Your task to perform on an android device: add a contact Image 0: 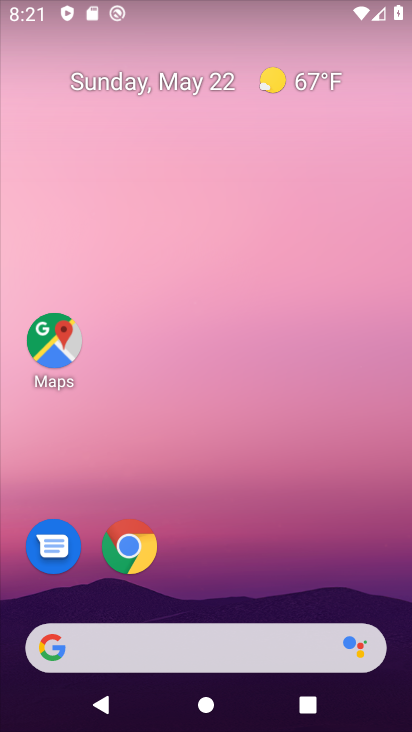
Step 0: drag from (193, 601) to (236, 63)
Your task to perform on an android device: add a contact Image 1: 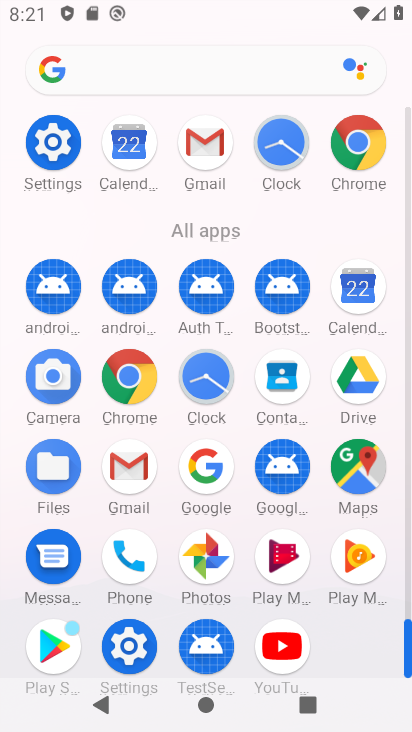
Step 1: click (292, 389)
Your task to perform on an android device: add a contact Image 2: 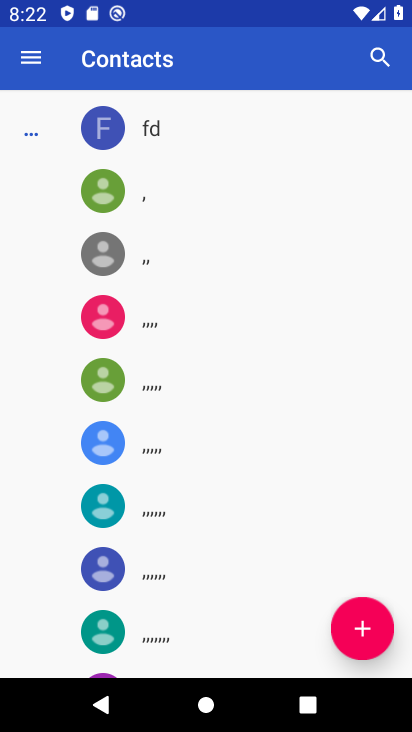
Step 2: click (367, 617)
Your task to perform on an android device: add a contact Image 3: 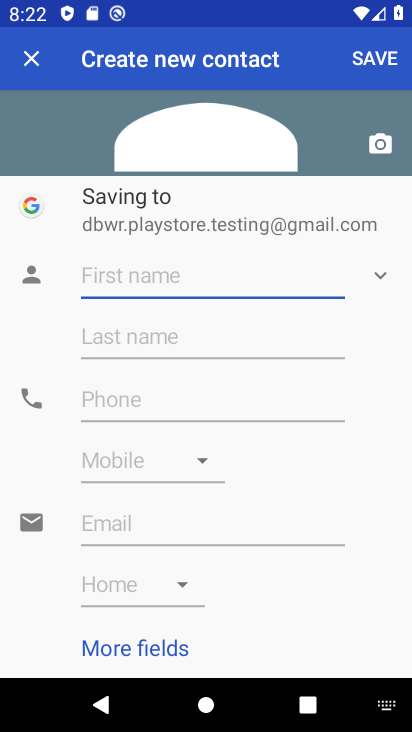
Step 3: type "cheaf"
Your task to perform on an android device: add a contact Image 4: 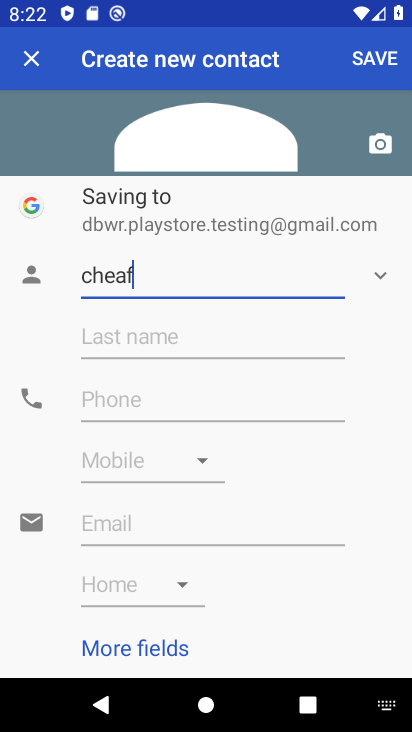
Step 4: click (386, 52)
Your task to perform on an android device: add a contact Image 5: 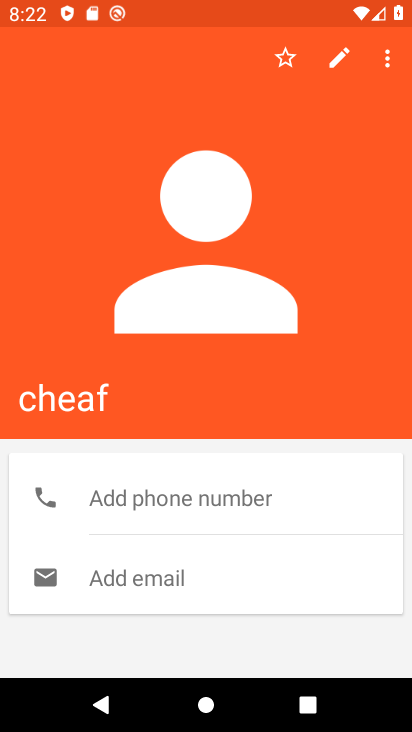
Step 5: task complete